Your task to perform on an android device: create a new album in the google photos Image 0: 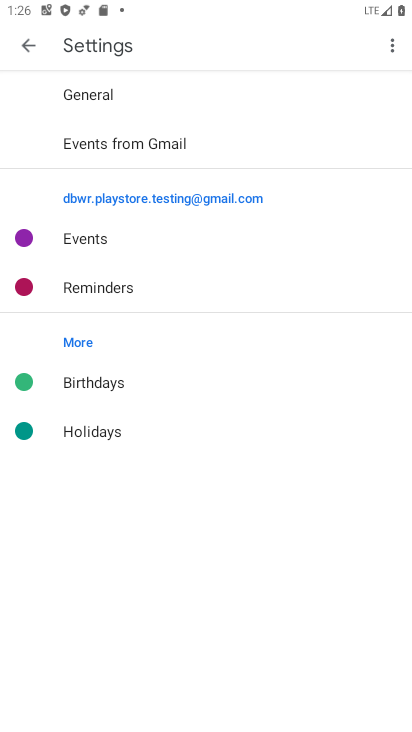
Step 0: press home button
Your task to perform on an android device: create a new album in the google photos Image 1: 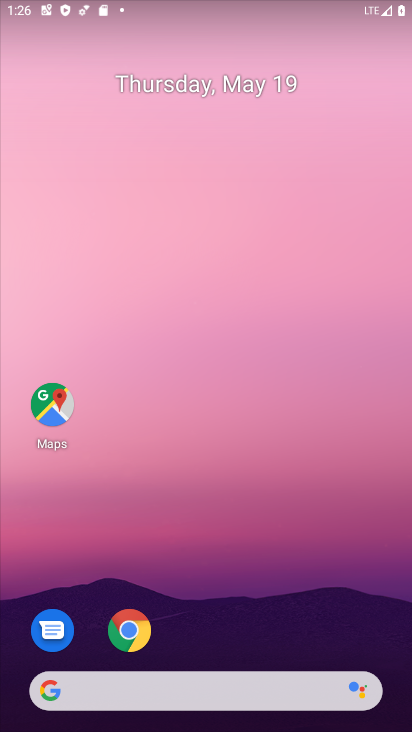
Step 1: drag from (214, 659) to (194, 62)
Your task to perform on an android device: create a new album in the google photos Image 2: 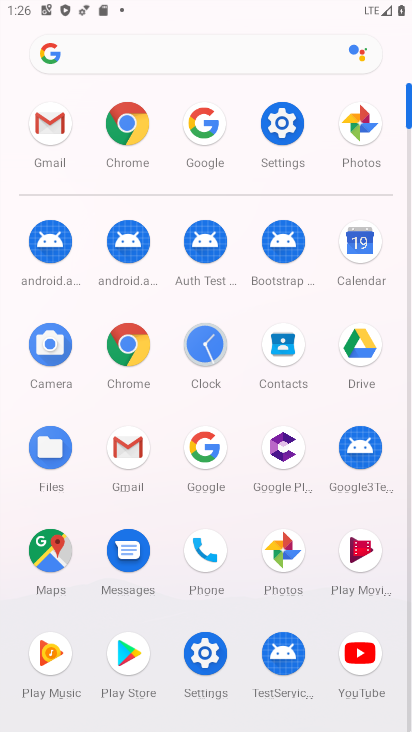
Step 2: click (289, 549)
Your task to perform on an android device: create a new album in the google photos Image 3: 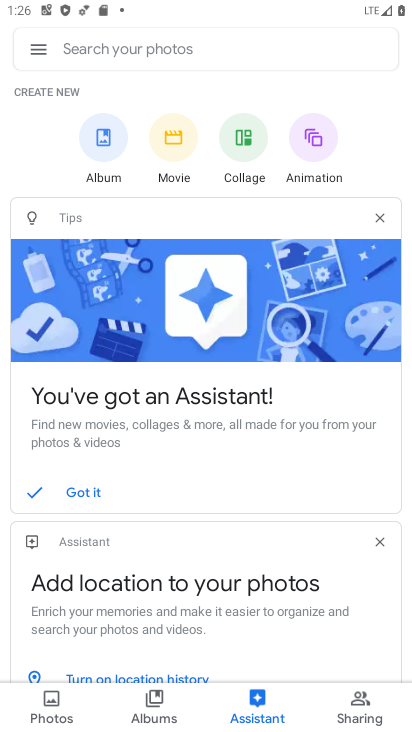
Step 3: click (63, 698)
Your task to perform on an android device: create a new album in the google photos Image 4: 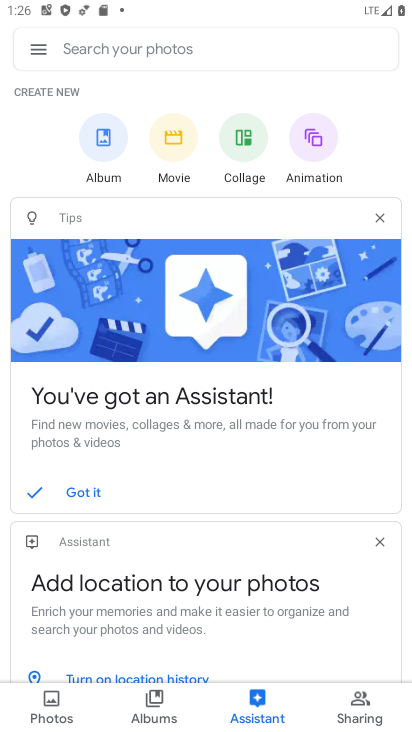
Step 4: click (56, 723)
Your task to perform on an android device: create a new album in the google photos Image 5: 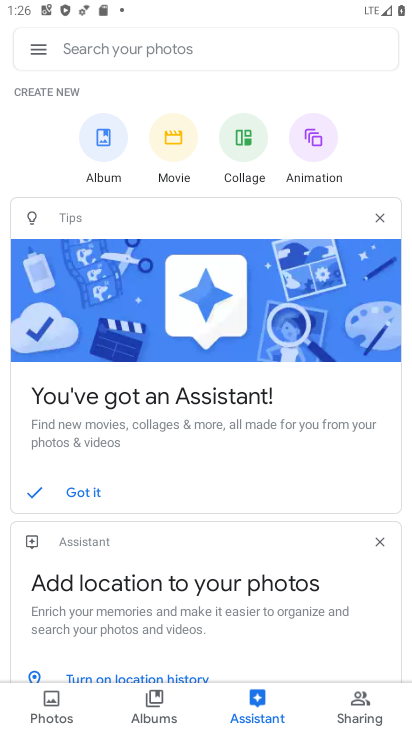
Step 5: click (52, 713)
Your task to perform on an android device: create a new album in the google photos Image 6: 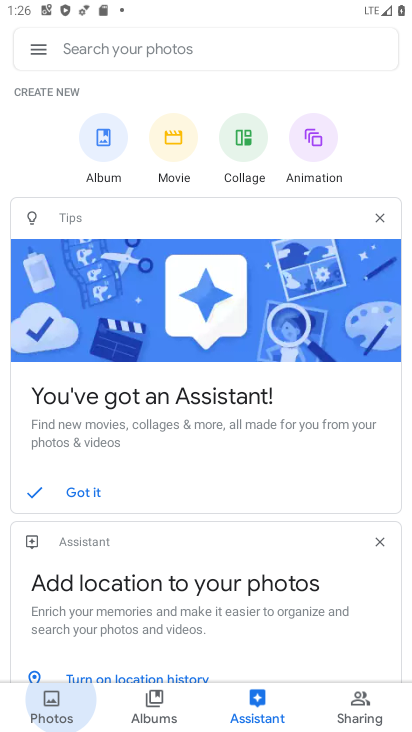
Step 6: click (52, 709)
Your task to perform on an android device: create a new album in the google photos Image 7: 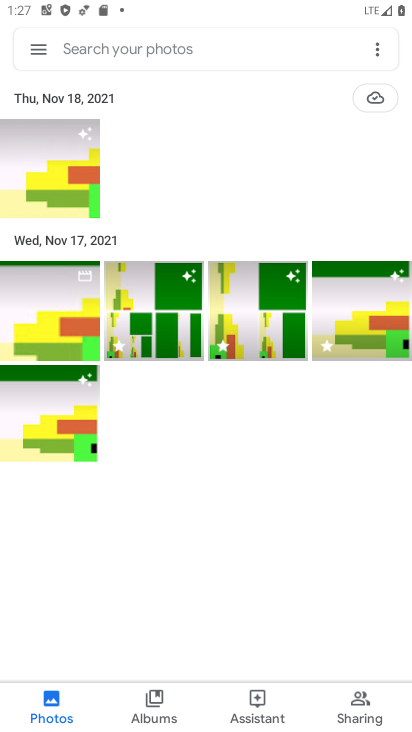
Step 7: click (63, 219)
Your task to perform on an android device: create a new album in the google photos Image 8: 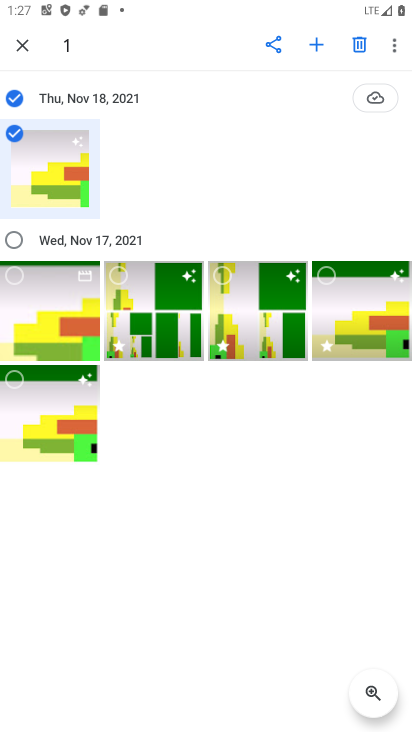
Step 8: click (50, 288)
Your task to perform on an android device: create a new album in the google photos Image 9: 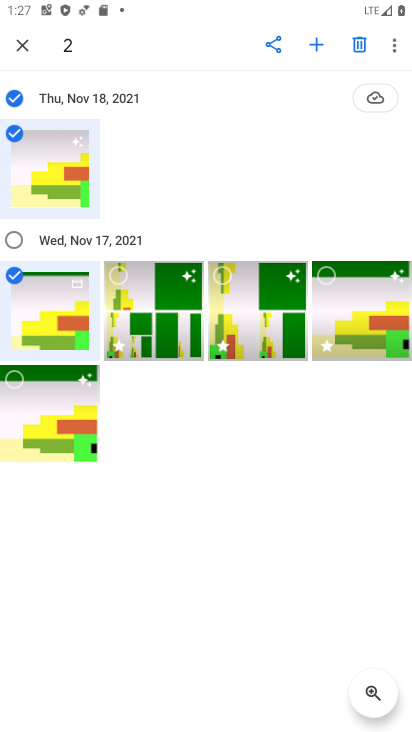
Step 9: click (317, 45)
Your task to perform on an android device: create a new album in the google photos Image 10: 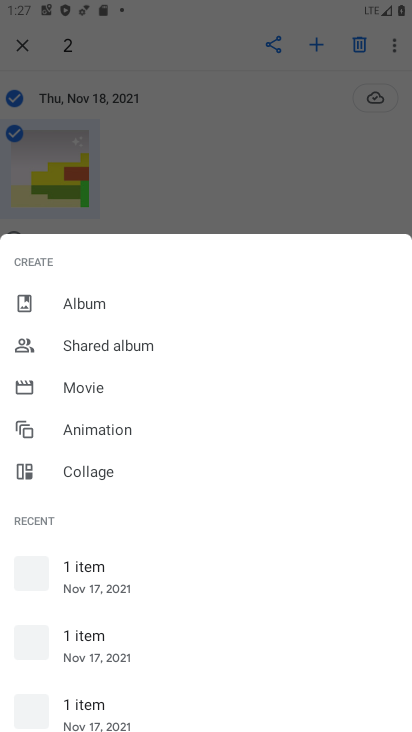
Step 10: click (105, 294)
Your task to perform on an android device: create a new album in the google photos Image 11: 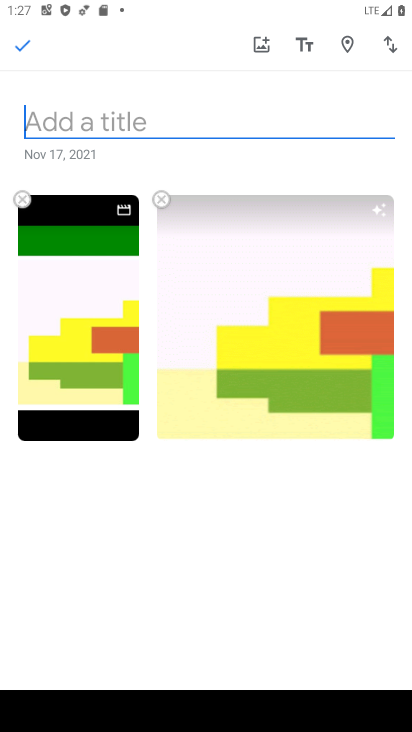
Step 11: type "ff"
Your task to perform on an android device: create a new album in the google photos Image 12: 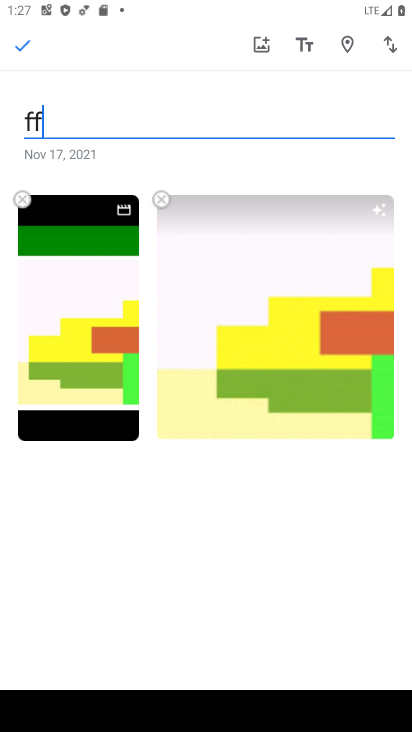
Step 12: click (31, 55)
Your task to perform on an android device: create a new album in the google photos Image 13: 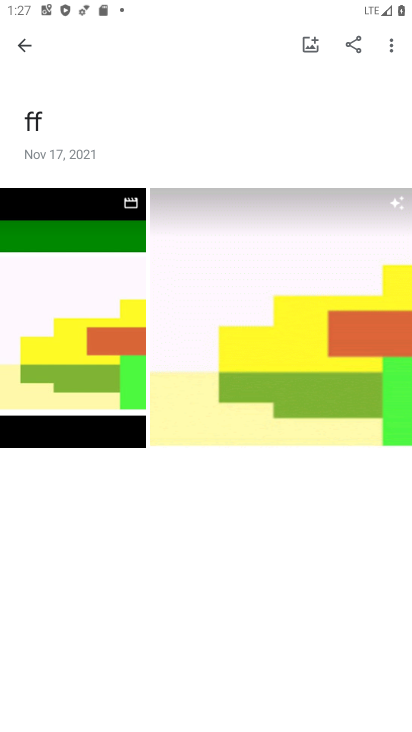
Step 13: task complete